Your task to perform on an android device: What's on my calendar tomorrow? Image 0: 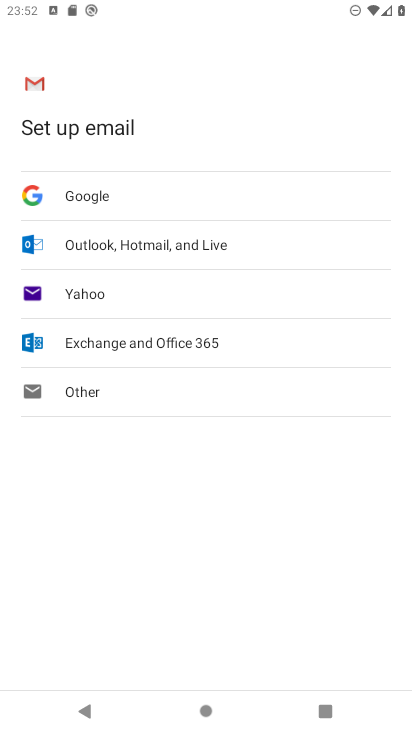
Step 0: press home button
Your task to perform on an android device: What's on my calendar tomorrow? Image 1: 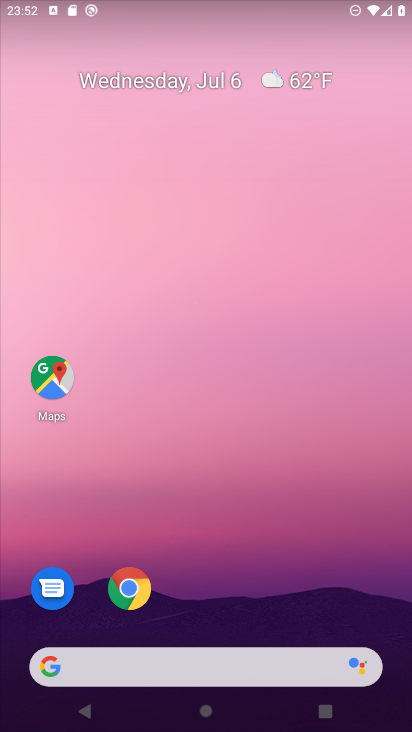
Step 1: drag from (383, 618) to (353, 77)
Your task to perform on an android device: What's on my calendar tomorrow? Image 2: 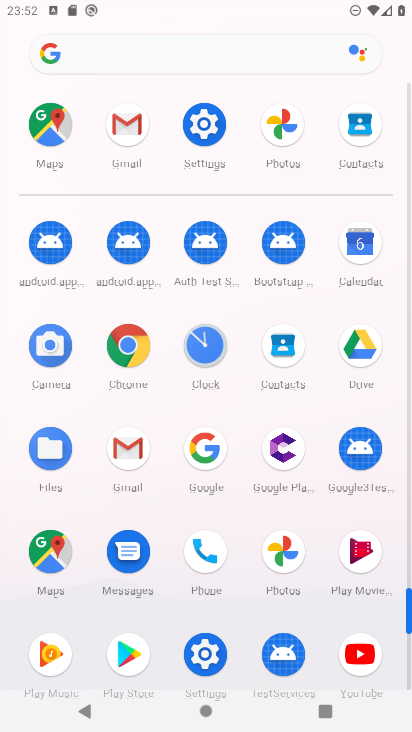
Step 2: click (363, 243)
Your task to perform on an android device: What's on my calendar tomorrow? Image 3: 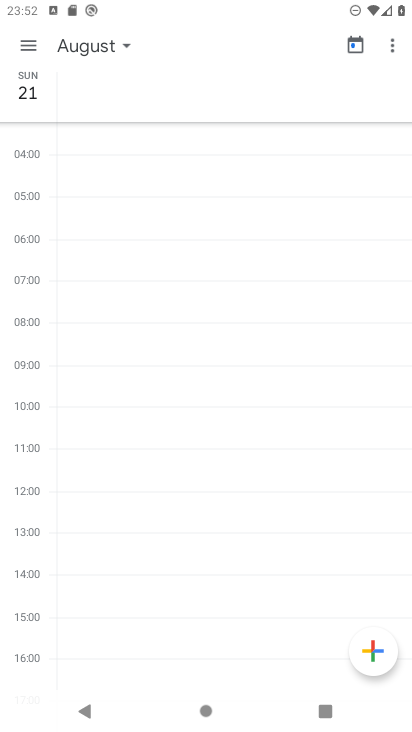
Step 3: click (122, 50)
Your task to perform on an android device: What's on my calendar tomorrow? Image 4: 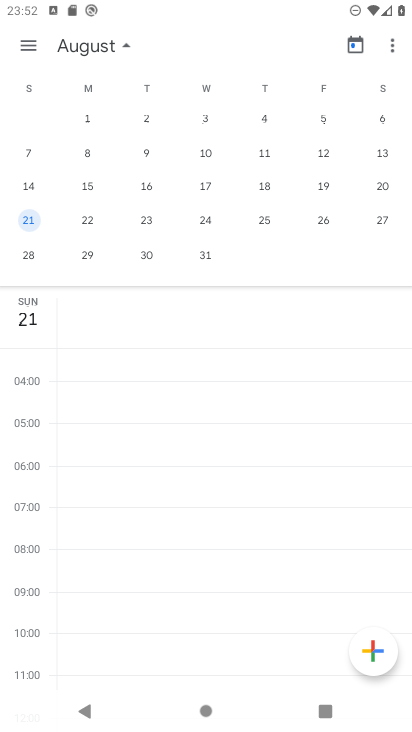
Step 4: drag from (33, 201) to (353, 187)
Your task to perform on an android device: What's on my calendar tomorrow? Image 5: 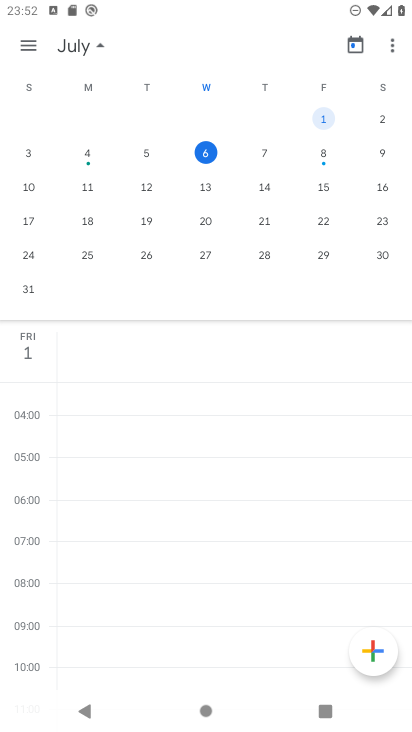
Step 5: click (264, 149)
Your task to perform on an android device: What's on my calendar tomorrow? Image 6: 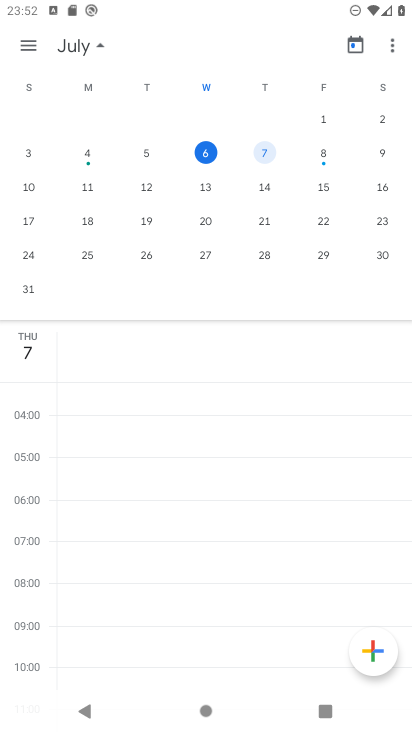
Step 6: task complete